Your task to perform on an android device: Go to accessibility settings Image 0: 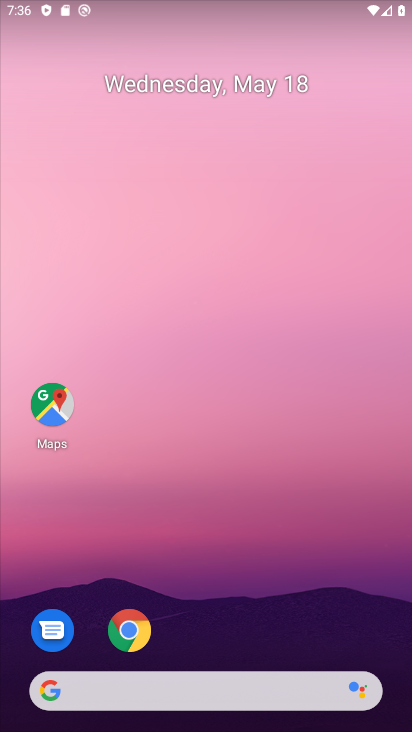
Step 0: drag from (173, 684) to (234, 90)
Your task to perform on an android device: Go to accessibility settings Image 1: 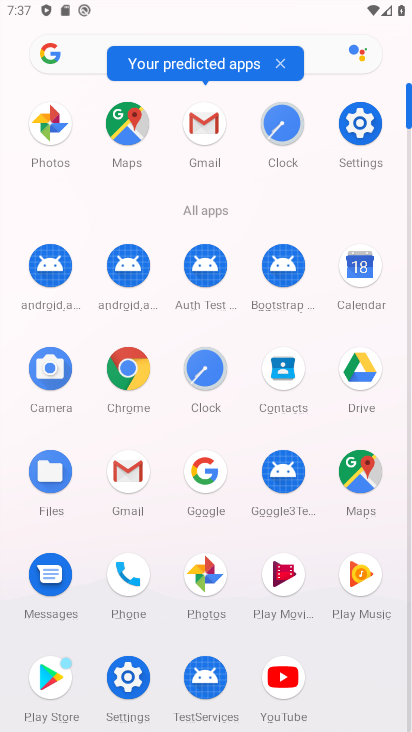
Step 1: click (357, 127)
Your task to perform on an android device: Go to accessibility settings Image 2: 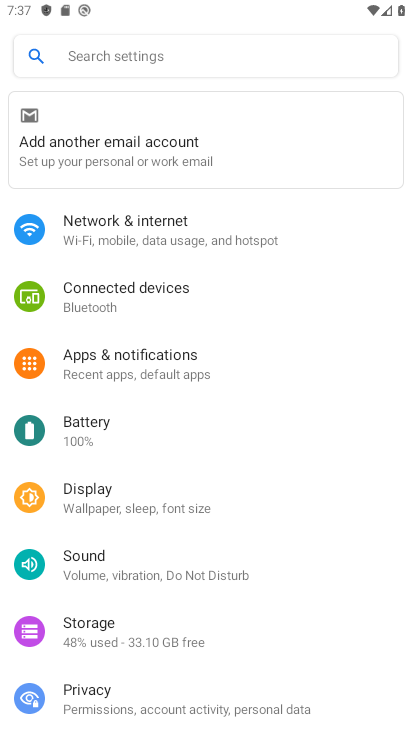
Step 2: drag from (171, 658) to (283, 198)
Your task to perform on an android device: Go to accessibility settings Image 3: 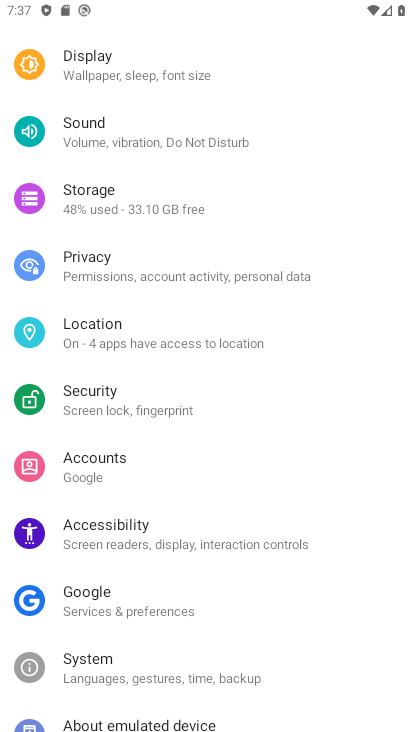
Step 3: click (98, 531)
Your task to perform on an android device: Go to accessibility settings Image 4: 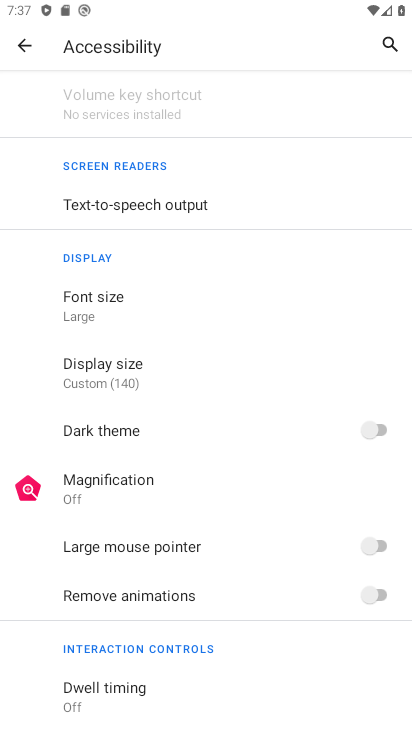
Step 4: task complete